Your task to perform on an android device: move a message to another label in the gmail app Image 0: 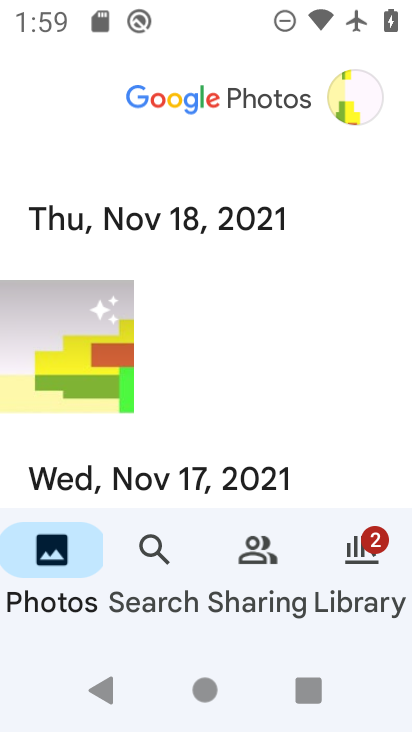
Step 0: press home button
Your task to perform on an android device: move a message to another label in the gmail app Image 1: 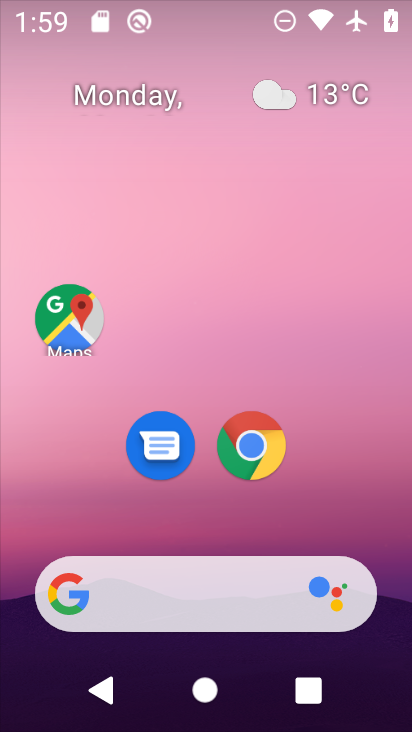
Step 1: drag from (397, 557) to (281, 77)
Your task to perform on an android device: move a message to another label in the gmail app Image 2: 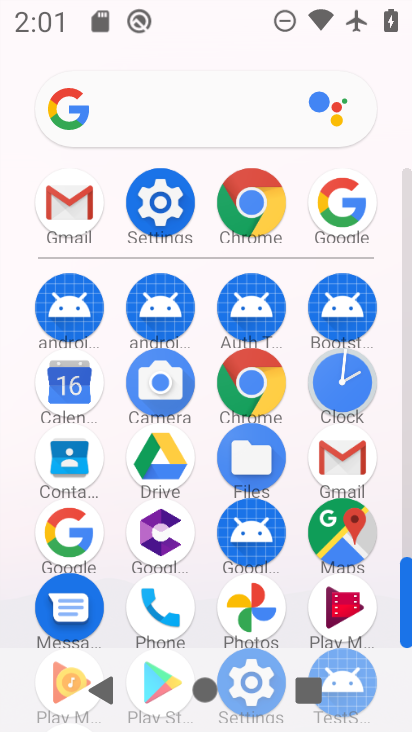
Step 2: click (348, 444)
Your task to perform on an android device: move a message to another label in the gmail app Image 3: 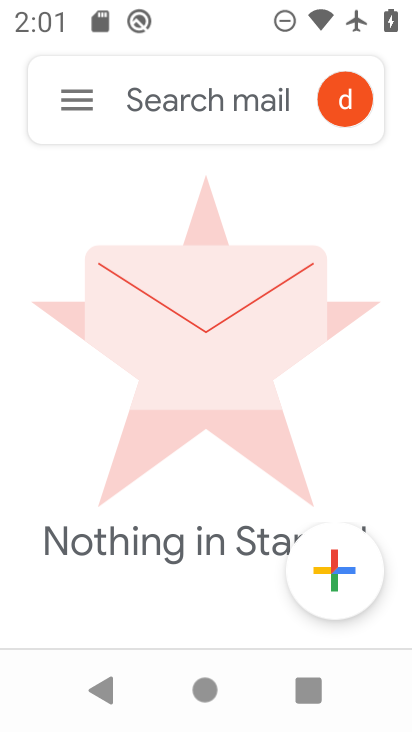
Step 3: task complete